Your task to perform on an android device: turn notification dots off Image 0: 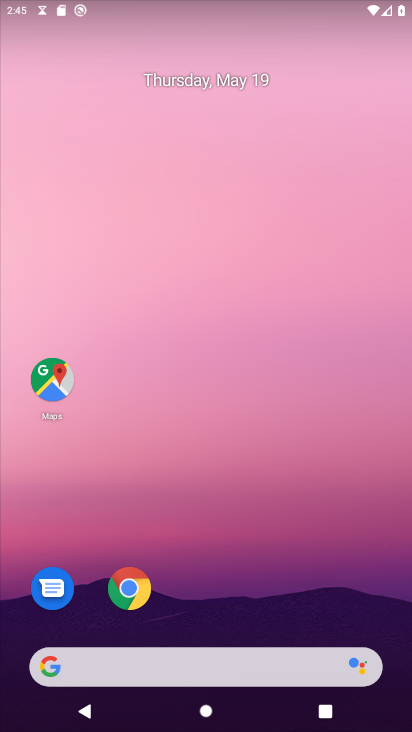
Step 0: drag from (200, 645) to (350, 151)
Your task to perform on an android device: turn notification dots off Image 1: 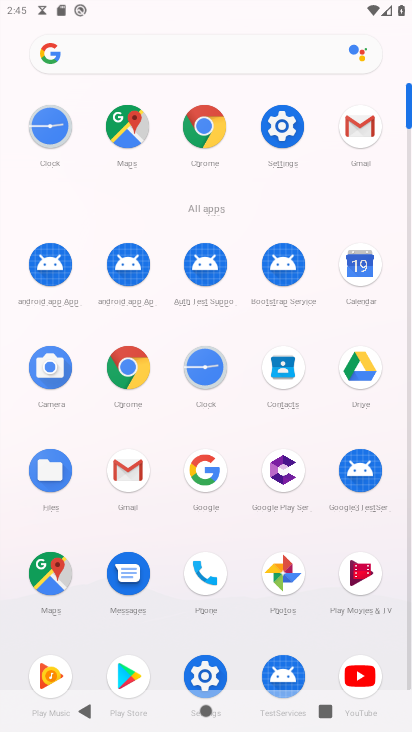
Step 1: click (280, 144)
Your task to perform on an android device: turn notification dots off Image 2: 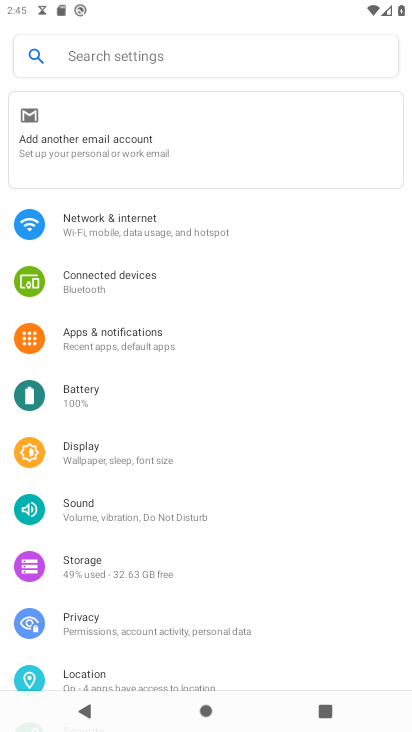
Step 2: click (145, 349)
Your task to perform on an android device: turn notification dots off Image 3: 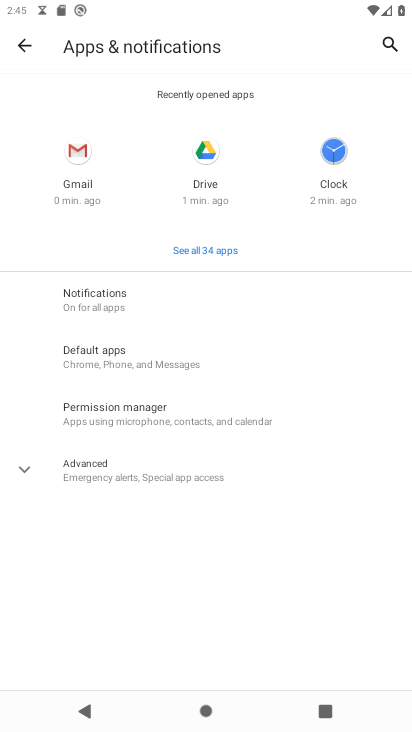
Step 3: click (117, 303)
Your task to perform on an android device: turn notification dots off Image 4: 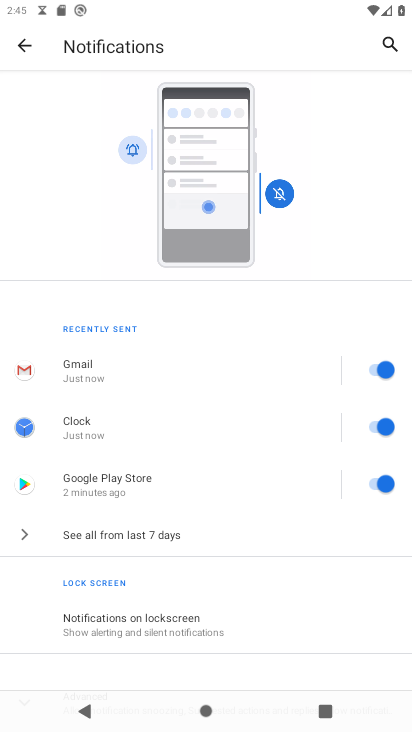
Step 4: drag from (111, 582) to (300, 75)
Your task to perform on an android device: turn notification dots off Image 5: 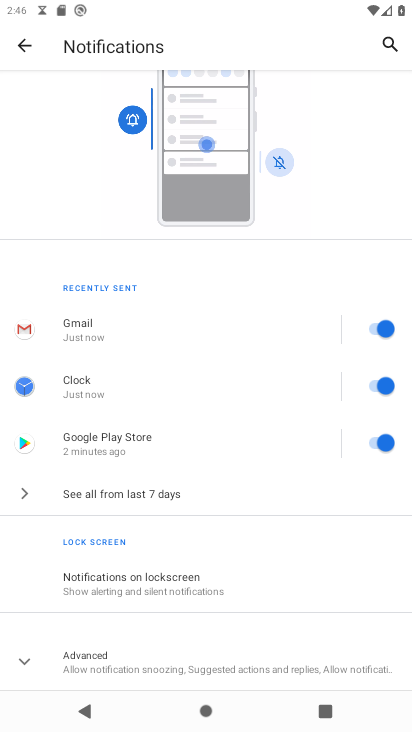
Step 5: click (91, 666)
Your task to perform on an android device: turn notification dots off Image 6: 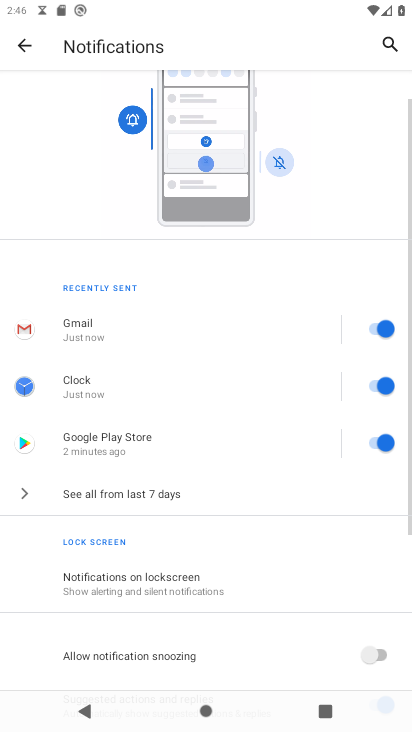
Step 6: drag from (91, 666) to (293, 235)
Your task to perform on an android device: turn notification dots off Image 7: 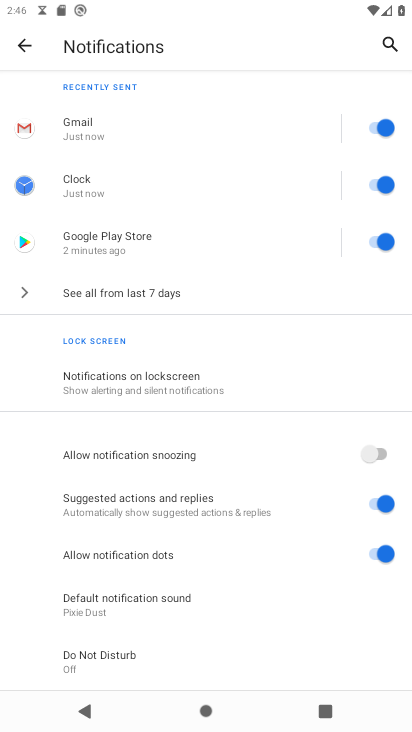
Step 7: click (376, 549)
Your task to perform on an android device: turn notification dots off Image 8: 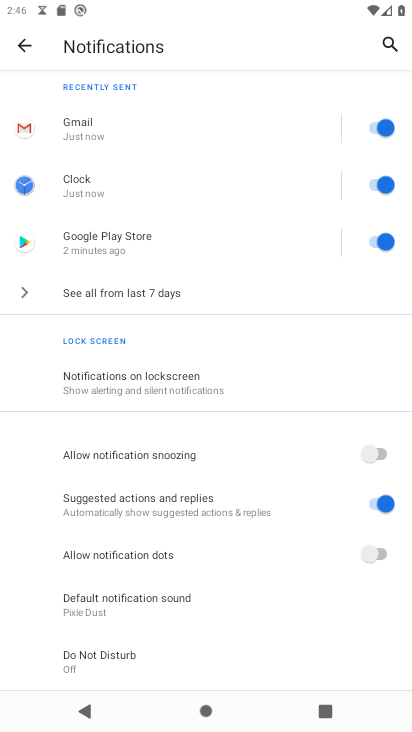
Step 8: task complete